Your task to perform on an android device: turn notification dots off Image 0: 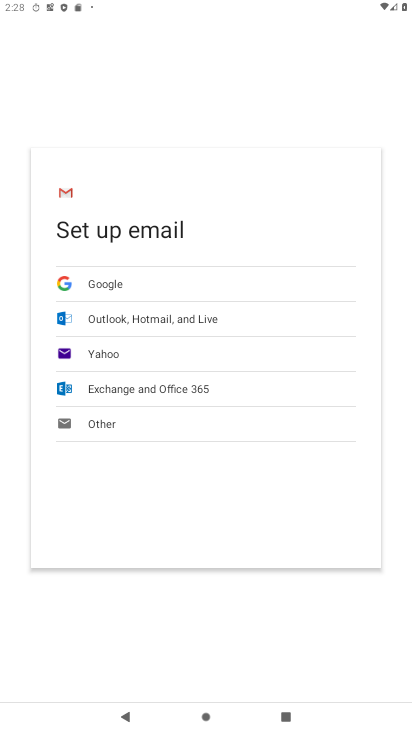
Step 0: press home button
Your task to perform on an android device: turn notification dots off Image 1: 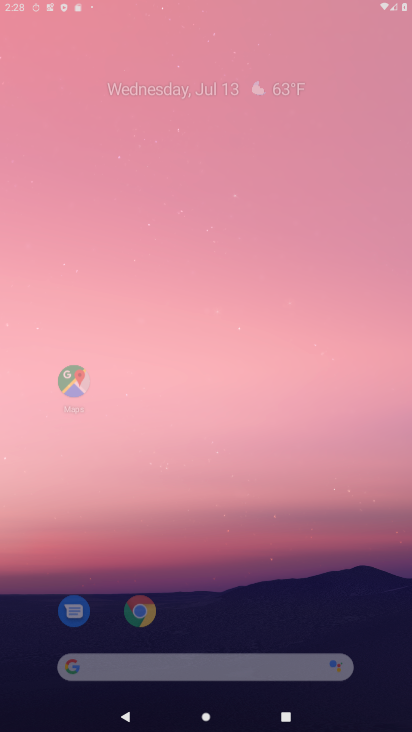
Step 1: drag from (154, 514) to (96, 8)
Your task to perform on an android device: turn notification dots off Image 2: 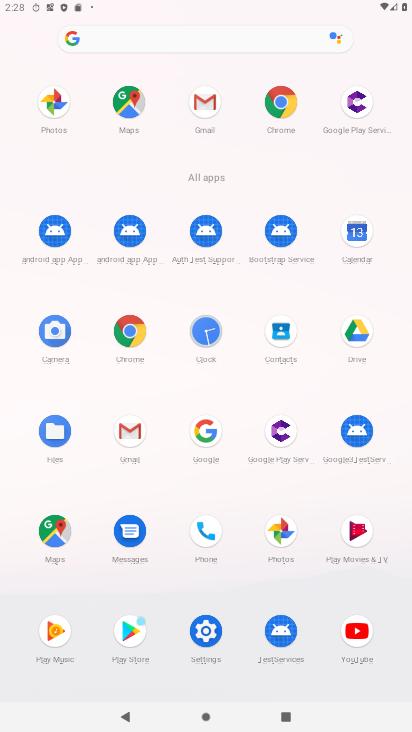
Step 2: click (208, 626)
Your task to perform on an android device: turn notification dots off Image 3: 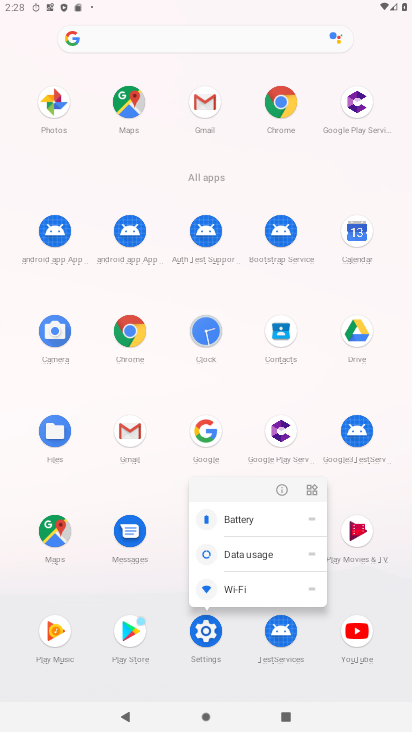
Step 3: click (283, 488)
Your task to perform on an android device: turn notification dots off Image 4: 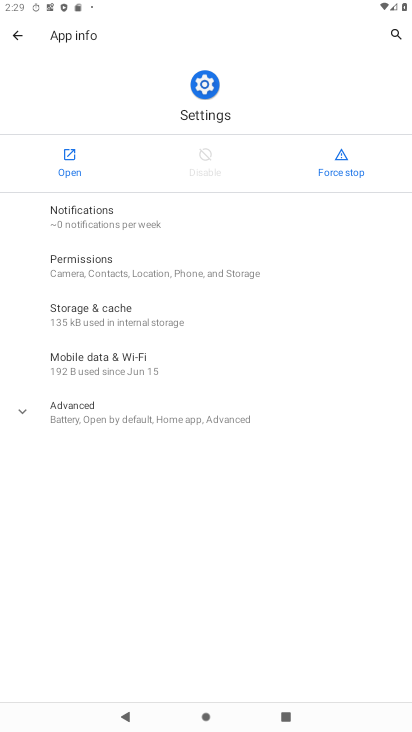
Step 4: click (66, 154)
Your task to perform on an android device: turn notification dots off Image 5: 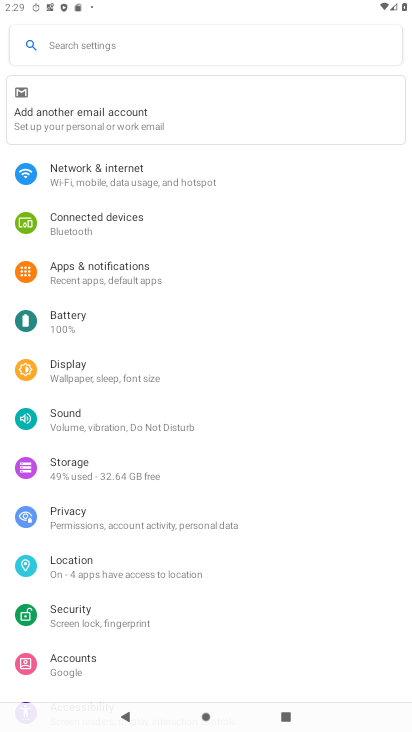
Step 5: click (102, 178)
Your task to perform on an android device: turn notification dots off Image 6: 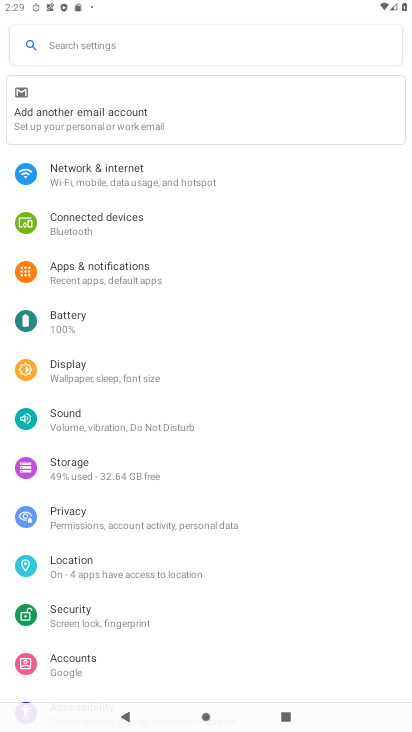
Step 6: click (102, 178)
Your task to perform on an android device: turn notification dots off Image 7: 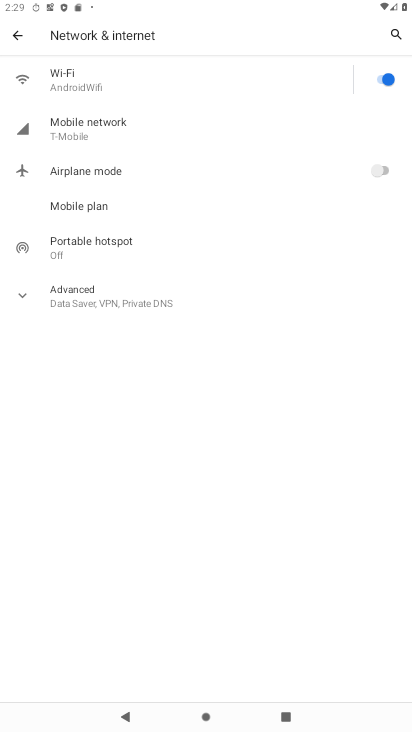
Step 7: click (22, 39)
Your task to perform on an android device: turn notification dots off Image 8: 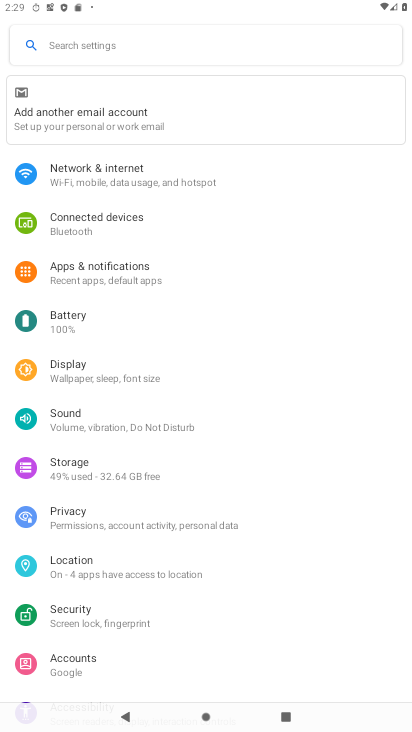
Step 8: click (119, 277)
Your task to perform on an android device: turn notification dots off Image 9: 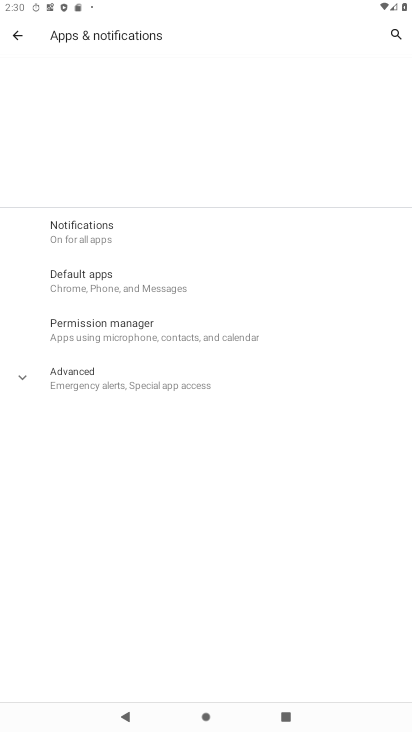
Step 9: drag from (227, 500) to (226, 329)
Your task to perform on an android device: turn notification dots off Image 10: 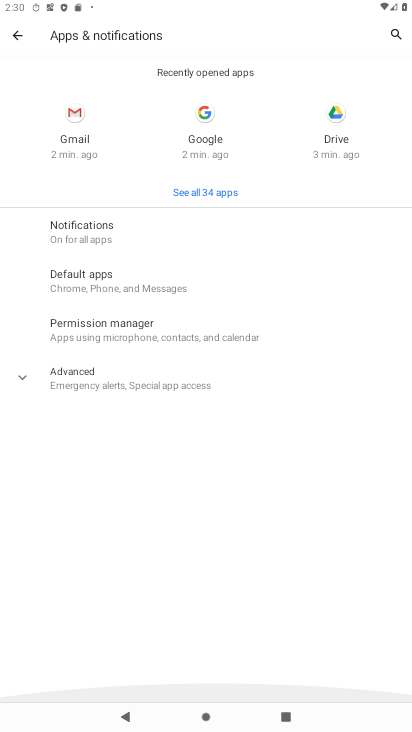
Step 10: click (108, 383)
Your task to perform on an android device: turn notification dots off Image 11: 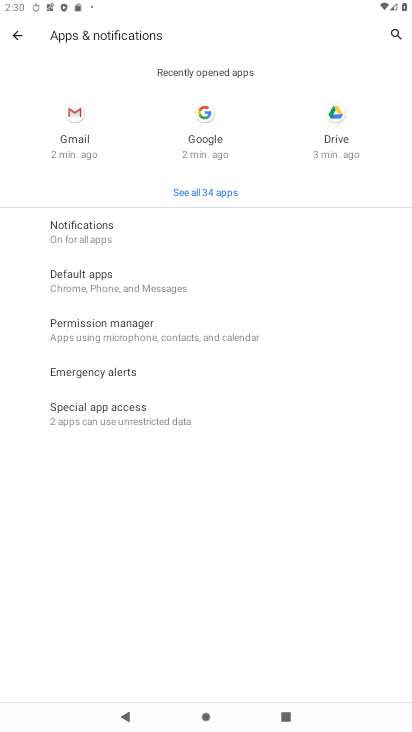
Step 11: click (106, 231)
Your task to perform on an android device: turn notification dots off Image 12: 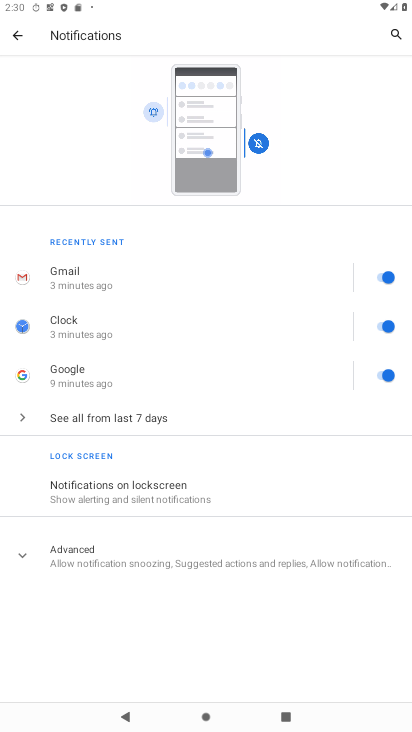
Step 12: click (165, 560)
Your task to perform on an android device: turn notification dots off Image 13: 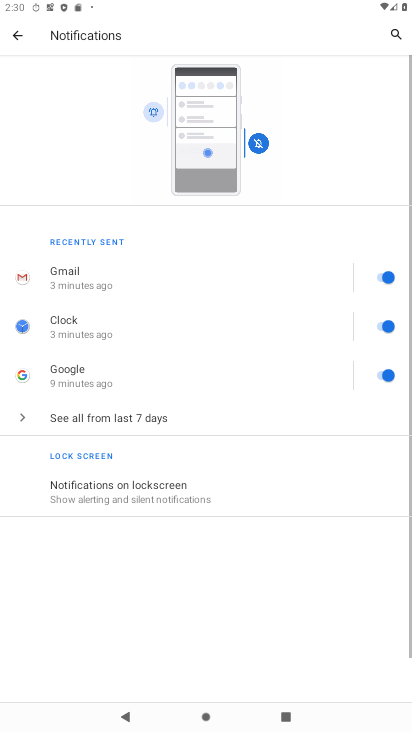
Step 13: drag from (195, 542) to (281, 204)
Your task to perform on an android device: turn notification dots off Image 14: 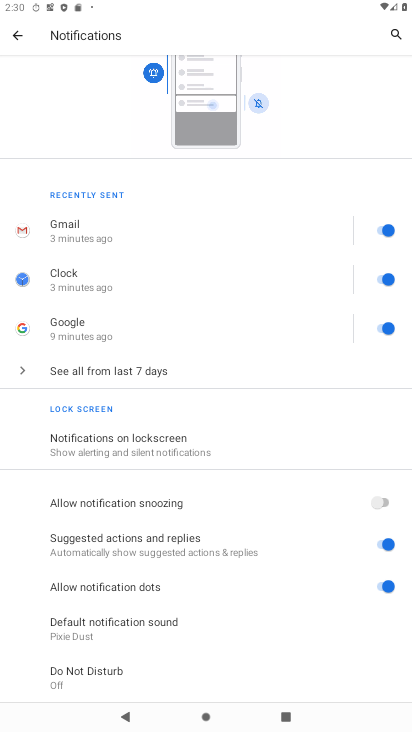
Step 14: click (395, 578)
Your task to perform on an android device: turn notification dots off Image 15: 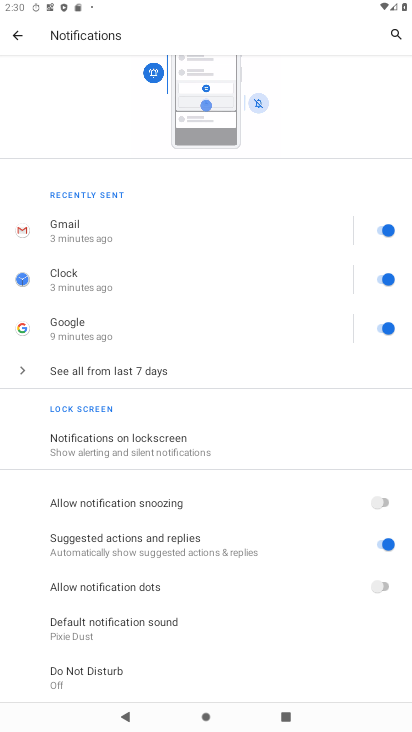
Step 15: task complete